Your task to perform on an android device: change the upload size in google photos Image 0: 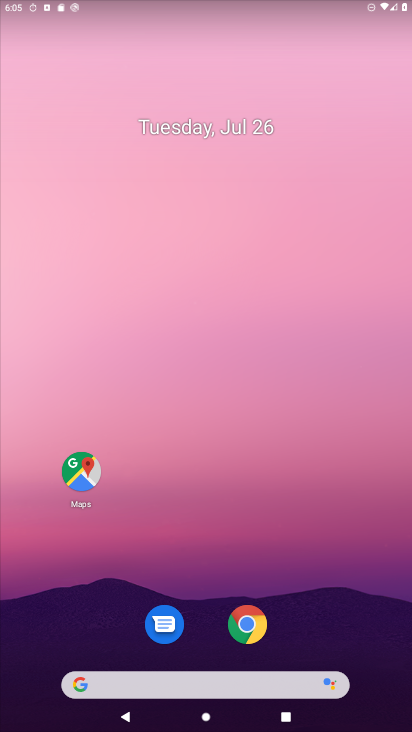
Step 0: drag from (203, 588) to (237, 75)
Your task to perform on an android device: change the upload size in google photos Image 1: 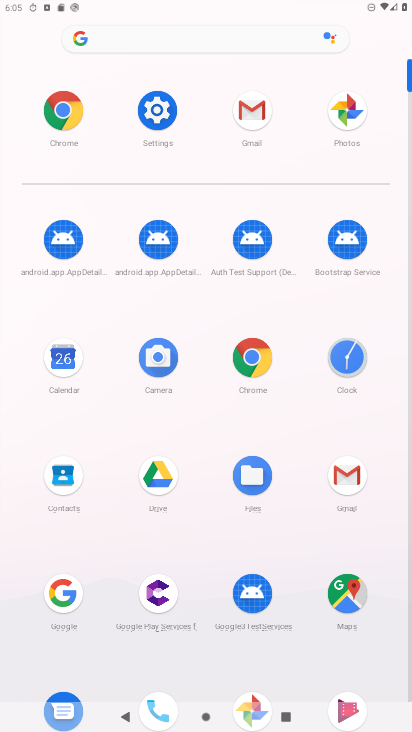
Step 1: drag from (254, 598) to (316, 268)
Your task to perform on an android device: change the upload size in google photos Image 2: 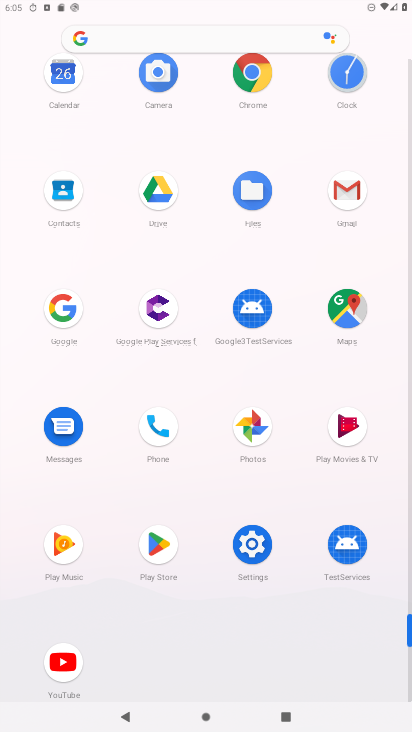
Step 2: click (253, 437)
Your task to perform on an android device: change the upload size in google photos Image 3: 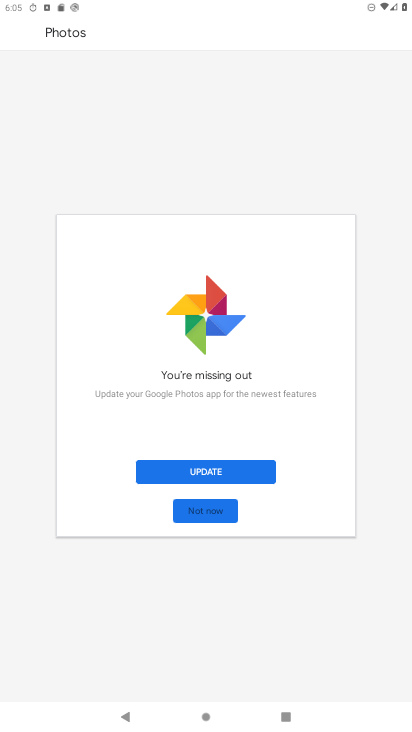
Step 3: click (244, 471)
Your task to perform on an android device: change the upload size in google photos Image 4: 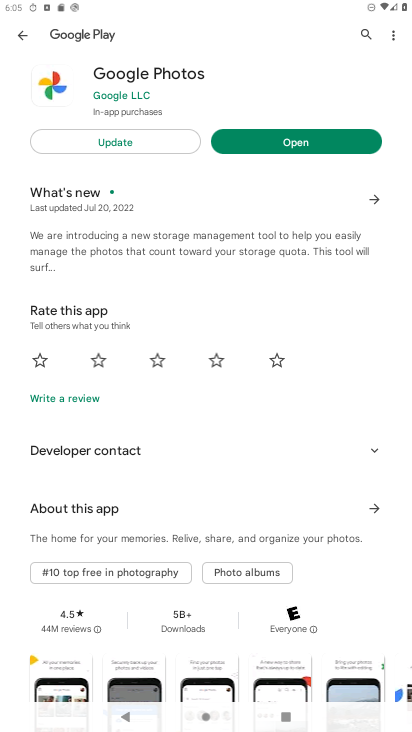
Step 4: click (134, 139)
Your task to perform on an android device: change the upload size in google photos Image 5: 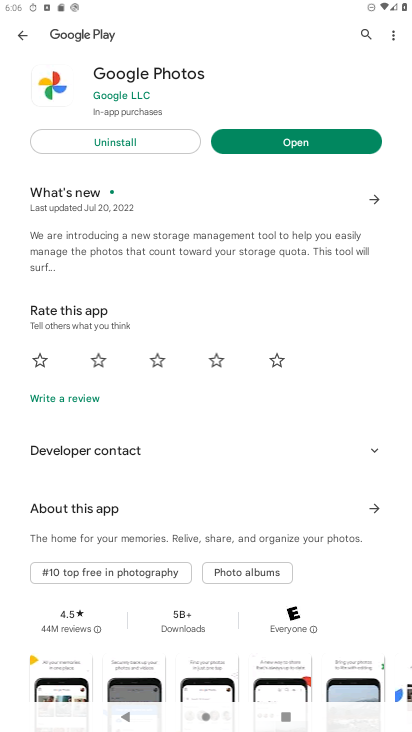
Step 5: click (313, 141)
Your task to perform on an android device: change the upload size in google photos Image 6: 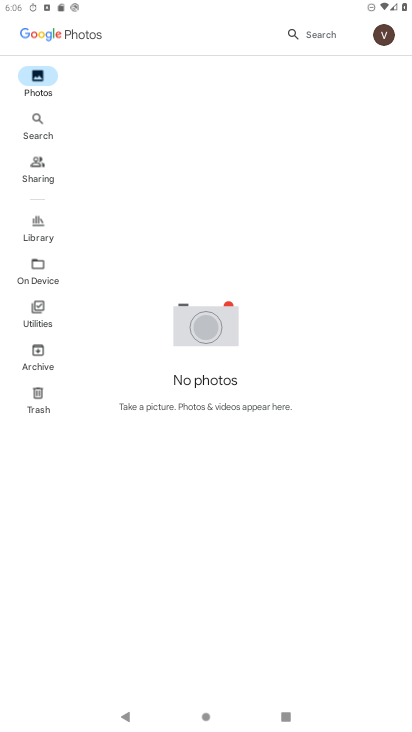
Step 6: click (386, 39)
Your task to perform on an android device: change the upload size in google photos Image 7: 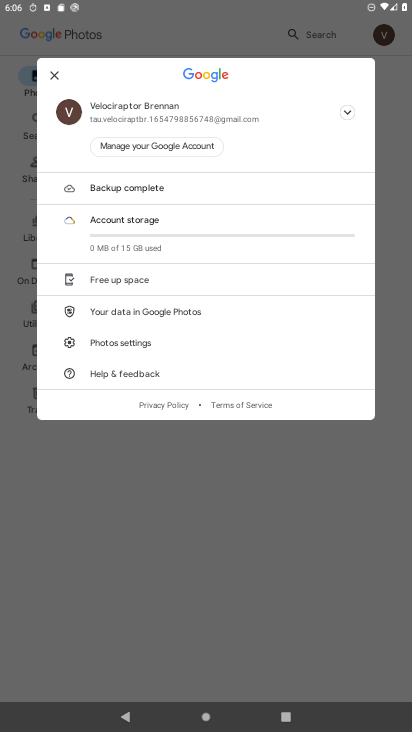
Step 7: click (156, 344)
Your task to perform on an android device: change the upload size in google photos Image 8: 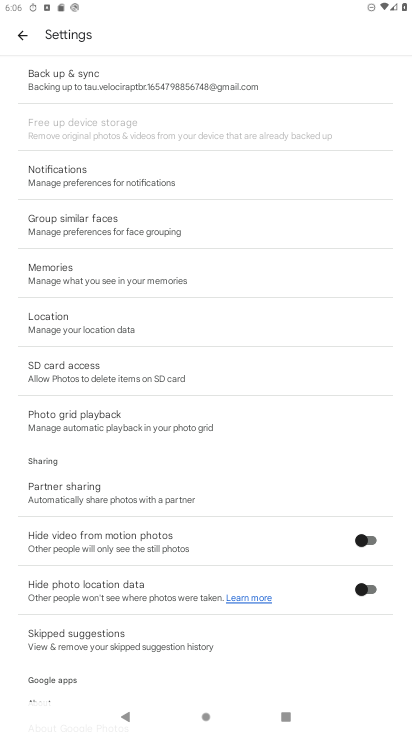
Step 8: click (123, 87)
Your task to perform on an android device: change the upload size in google photos Image 9: 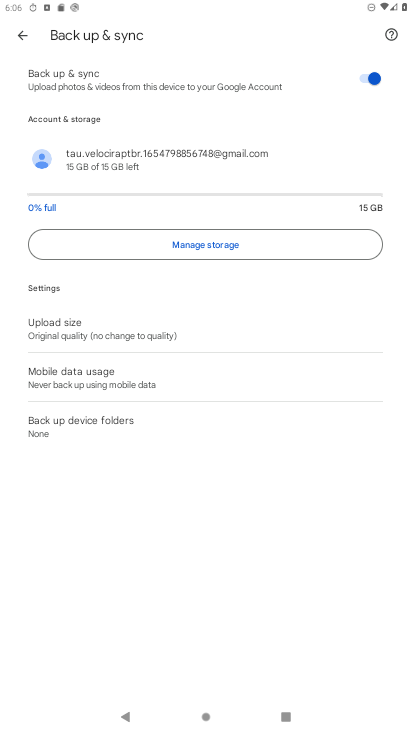
Step 9: click (105, 337)
Your task to perform on an android device: change the upload size in google photos Image 10: 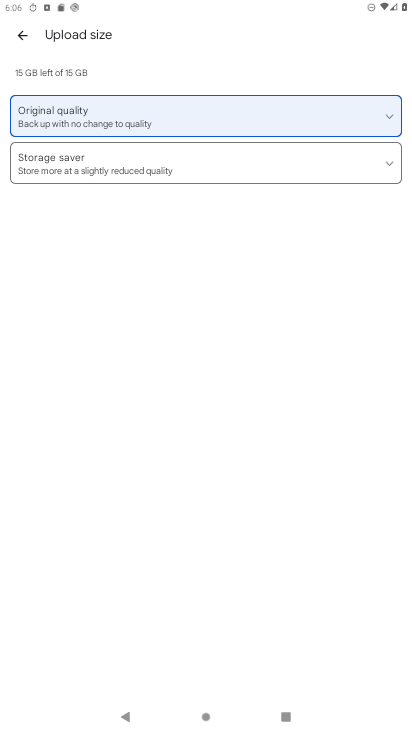
Step 10: click (94, 157)
Your task to perform on an android device: change the upload size in google photos Image 11: 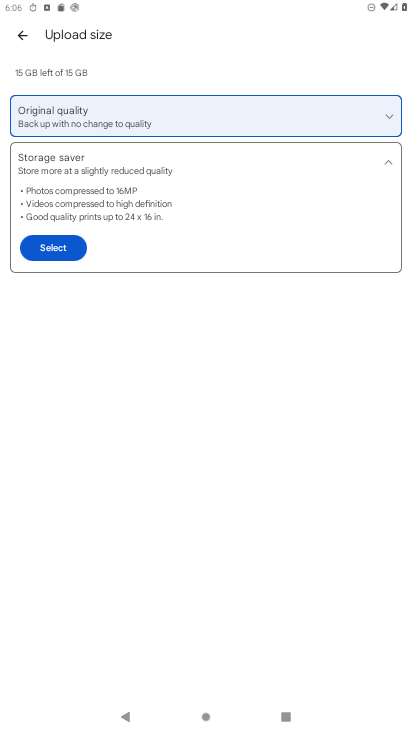
Step 11: task complete